Your task to perform on an android device: Search for Italian restaurants on Maps Image 0: 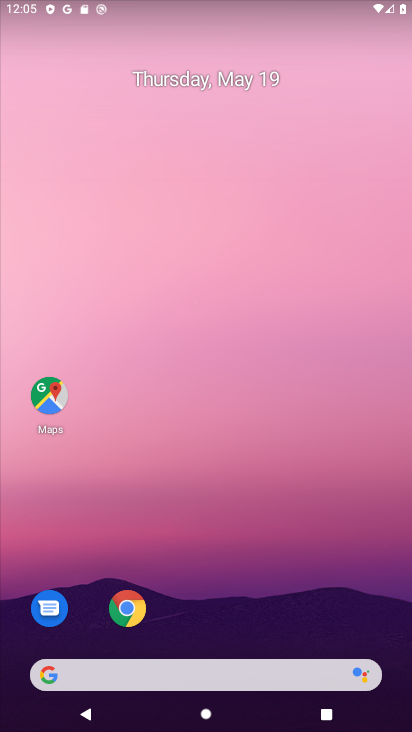
Step 0: drag from (303, 611) to (278, 248)
Your task to perform on an android device: Search for Italian restaurants on Maps Image 1: 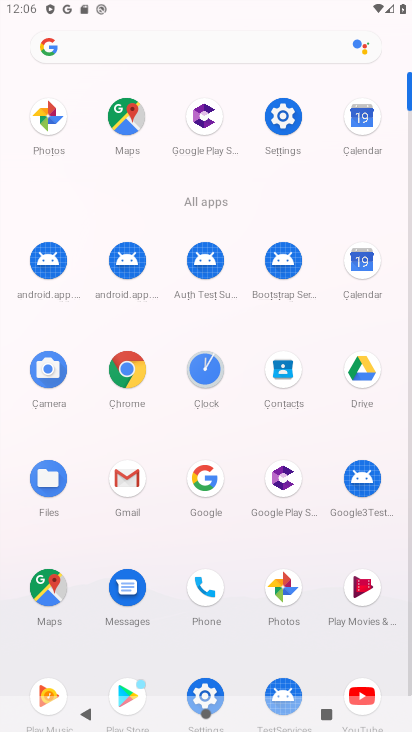
Step 1: click (55, 590)
Your task to perform on an android device: Search for Italian restaurants on Maps Image 2: 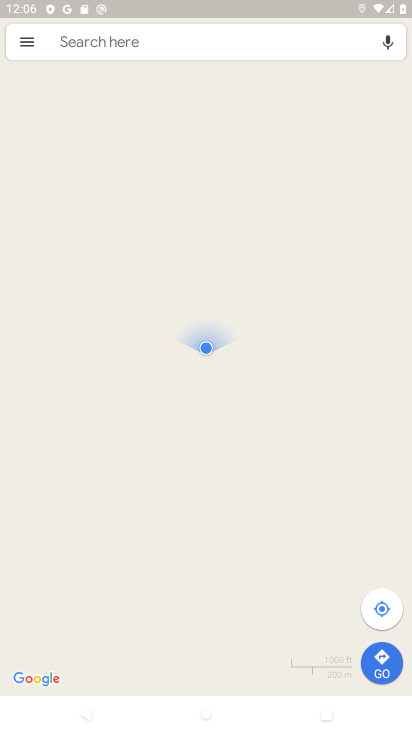
Step 2: click (233, 36)
Your task to perform on an android device: Search for Italian restaurants on Maps Image 3: 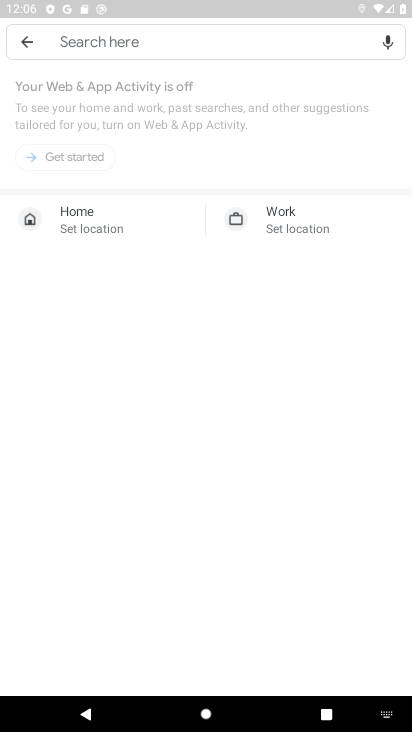
Step 3: click (209, 37)
Your task to perform on an android device: Search for Italian restaurants on Maps Image 4: 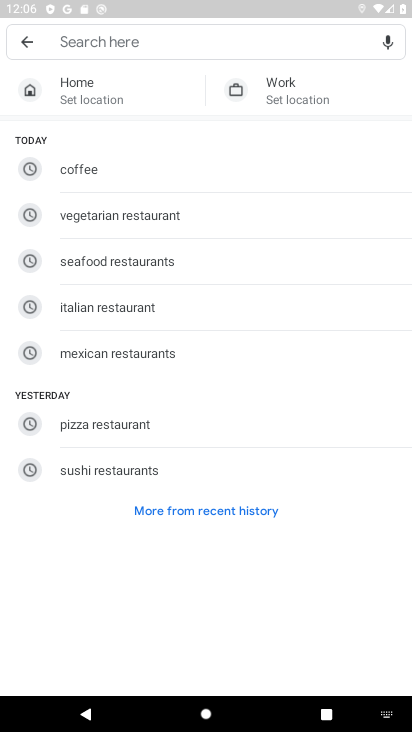
Step 4: type "Italian restaurants"
Your task to perform on an android device: Search for Italian restaurants on Maps Image 5: 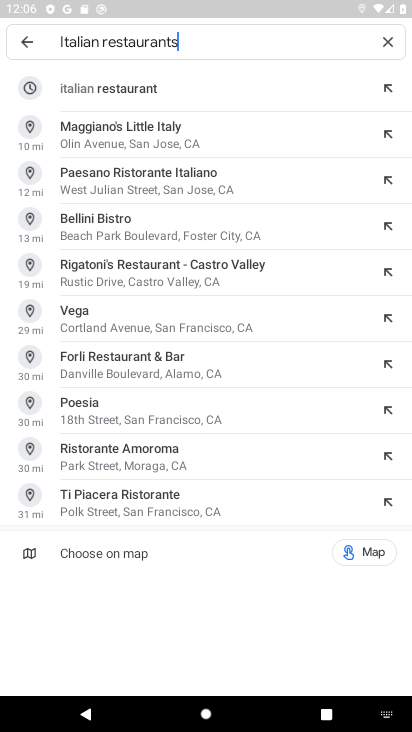
Step 5: click (156, 81)
Your task to perform on an android device: Search for Italian restaurants on Maps Image 6: 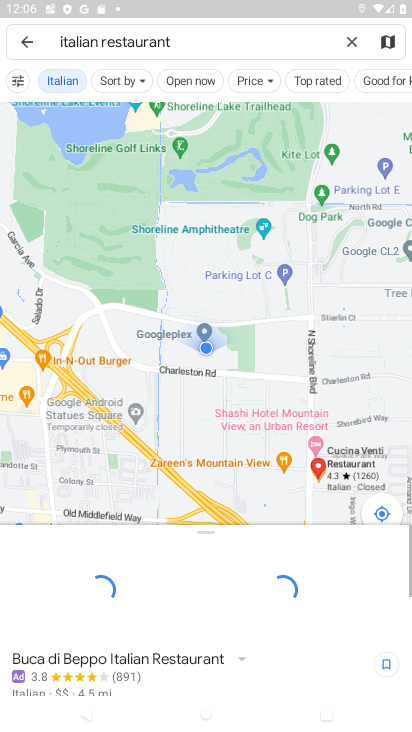
Step 6: task complete